Your task to perform on an android device: Go to Maps Image 0: 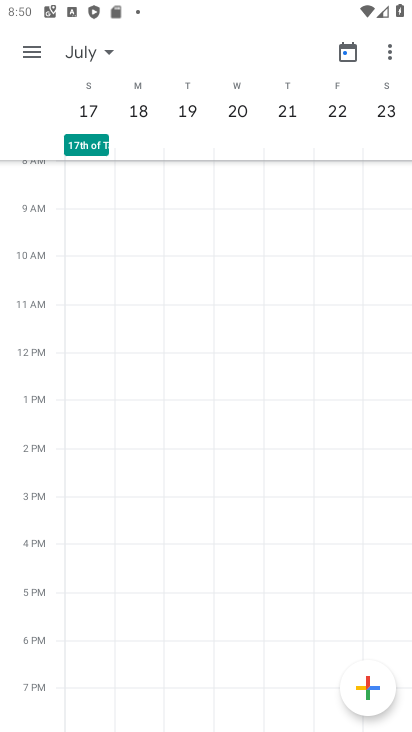
Step 0: press home button
Your task to perform on an android device: Go to Maps Image 1: 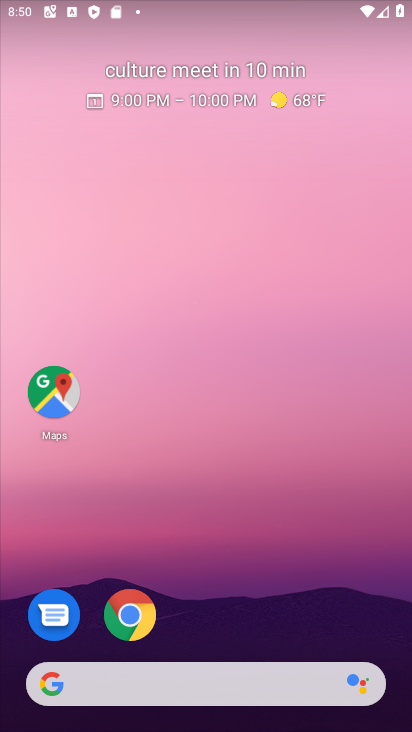
Step 1: click (62, 376)
Your task to perform on an android device: Go to Maps Image 2: 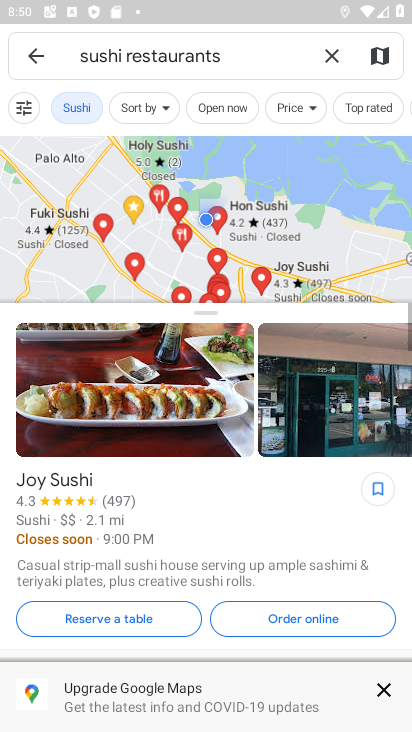
Step 2: click (31, 58)
Your task to perform on an android device: Go to Maps Image 3: 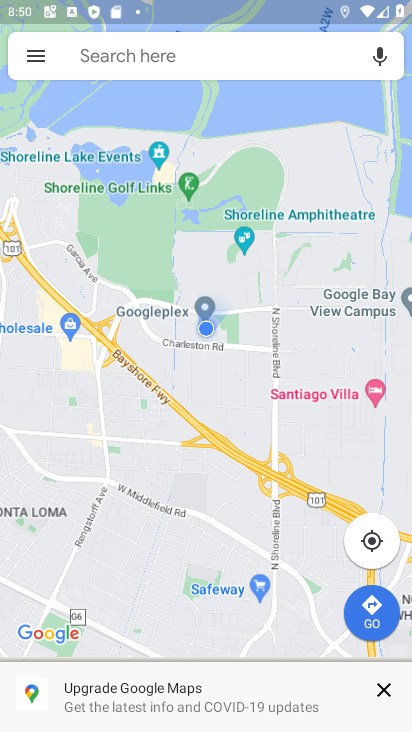
Step 3: task complete